Your task to perform on an android device: Open calendar and show me the fourth week of next month Image 0: 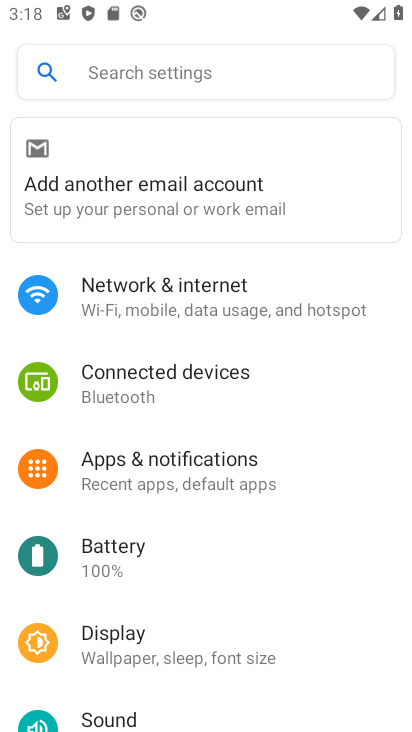
Step 0: press home button
Your task to perform on an android device: Open calendar and show me the fourth week of next month Image 1: 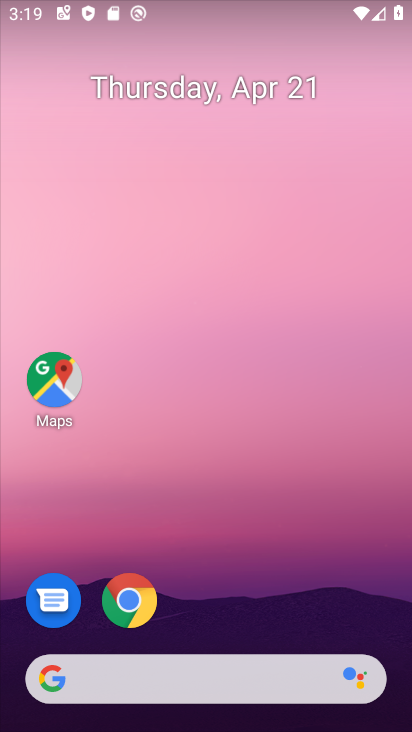
Step 1: drag from (228, 623) to (282, 5)
Your task to perform on an android device: Open calendar and show me the fourth week of next month Image 2: 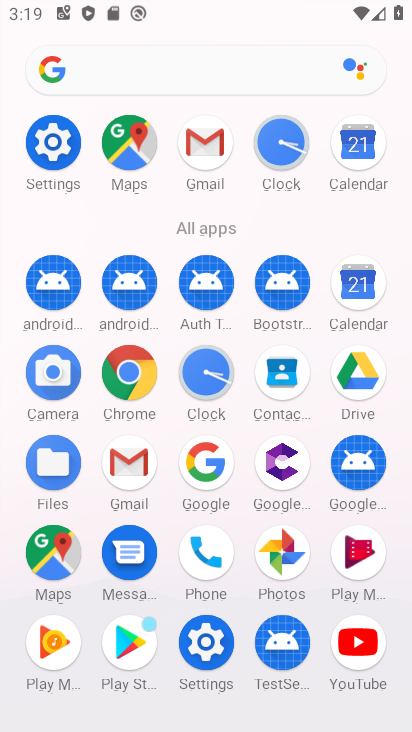
Step 2: click (362, 147)
Your task to perform on an android device: Open calendar and show me the fourth week of next month Image 3: 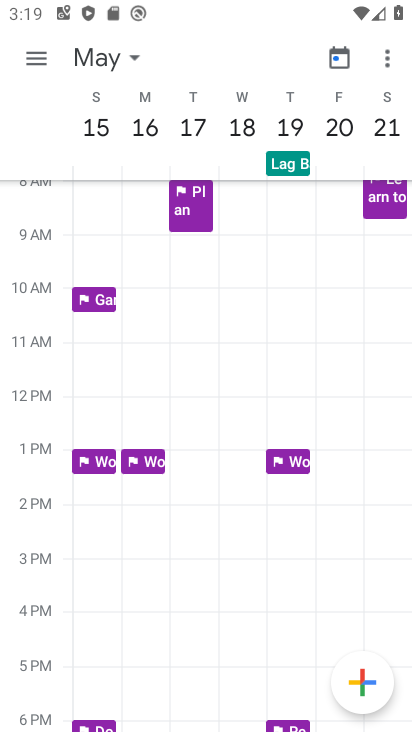
Step 3: click (341, 61)
Your task to perform on an android device: Open calendar and show me the fourth week of next month Image 4: 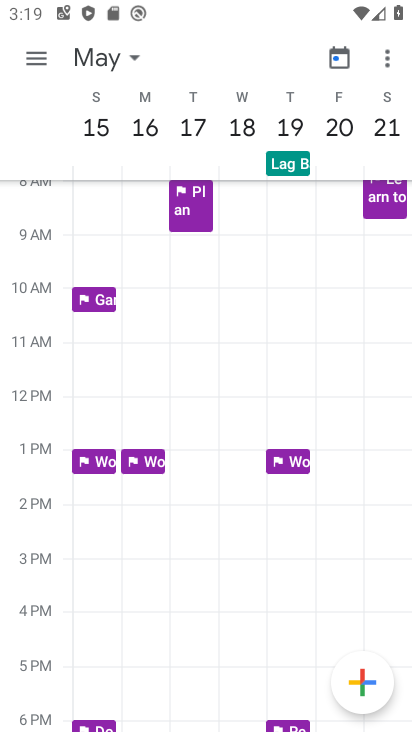
Step 4: click (341, 61)
Your task to perform on an android device: Open calendar and show me the fourth week of next month Image 5: 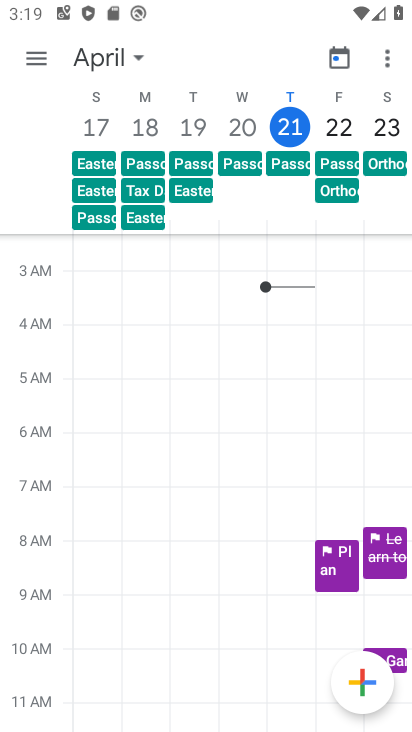
Step 5: click (136, 56)
Your task to perform on an android device: Open calendar and show me the fourth week of next month Image 6: 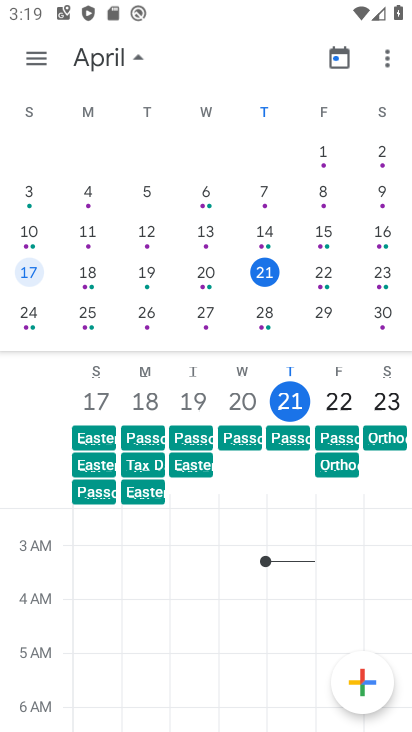
Step 6: drag from (355, 281) to (16, 253)
Your task to perform on an android device: Open calendar and show me the fourth week of next month Image 7: 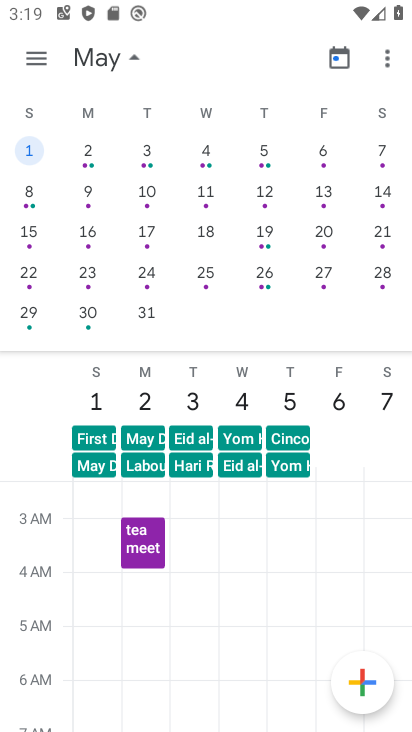
Step 7: click (88, 273)
Your task to perform on an android device: Open calendar and show me the fourth week of next month Image 8: 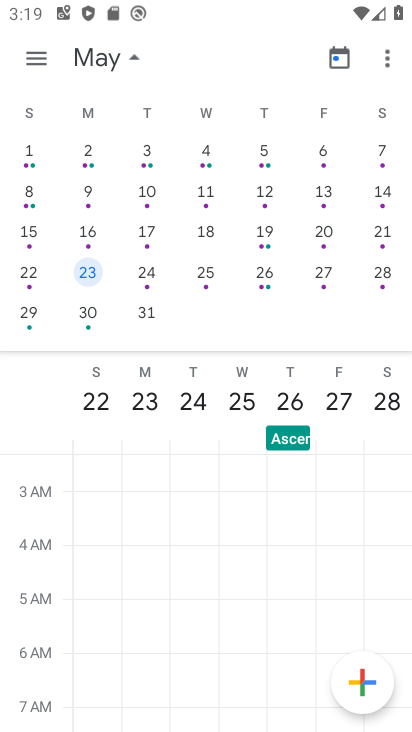
Step 8: click (40, 59)
Your task to perform on an android device: Open calendar and show me the fourth week of next month Image 9: 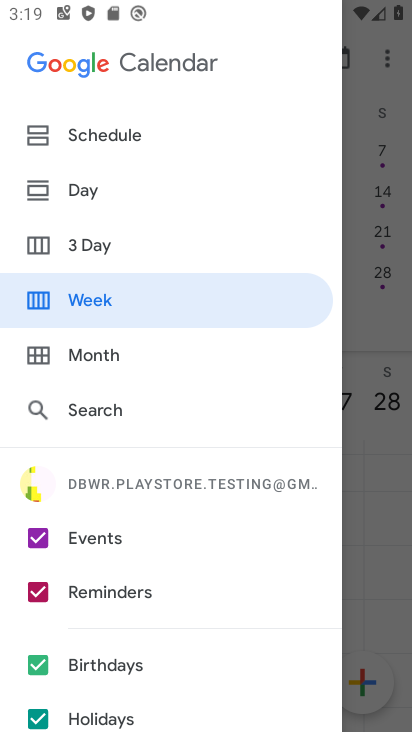
Step 9: click (80, 294)
Your task to perform on an android device: Open calendar and show me the fourth week of next month Image 10: 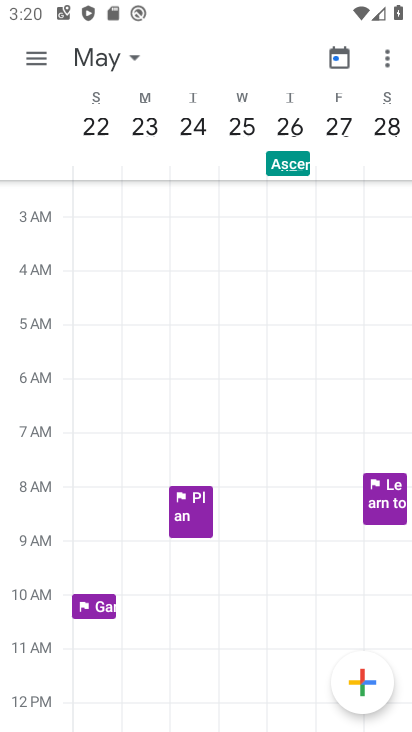
Step 10: task complete